Your task to perform on an android device: set the stopwatch Image 0: 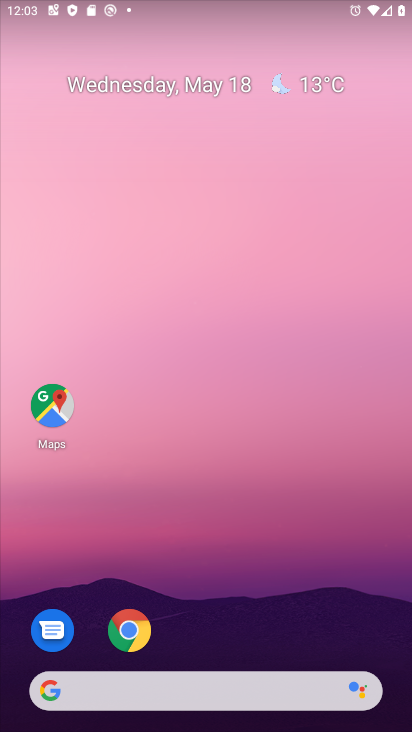
Step 0: drag from (236, 727) to (238, 181)
Your task to perform on an android device: set the stopwatch Image 1: 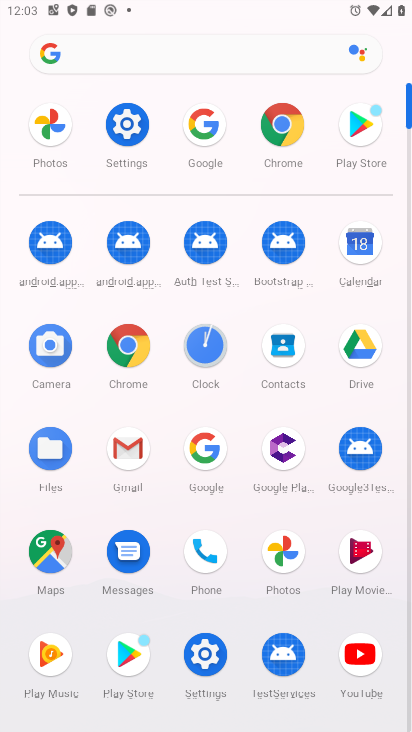
Step 1: click (210, 337)
Your task to perform on an android device: set the stopwatch Image 2: 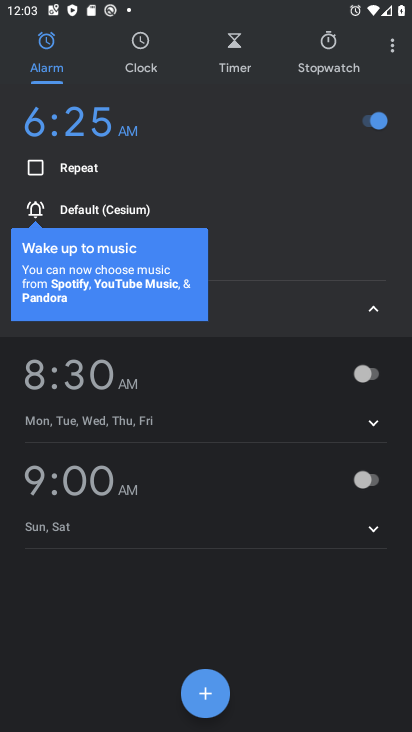
Step 2: click (331, 46)
Your task to perform on an android device: set the stopwatch Image 3: 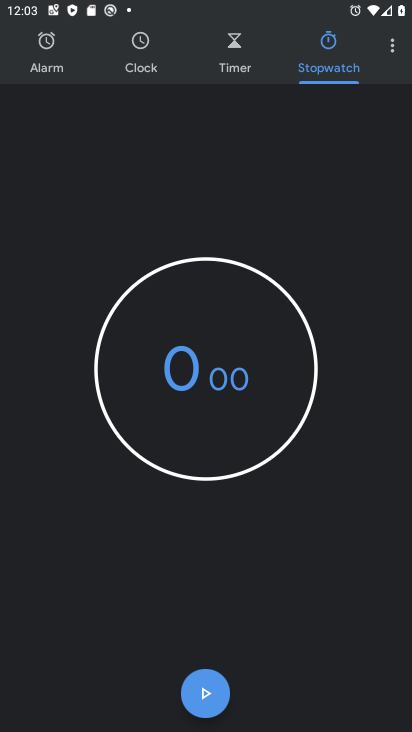
Step 3: task complete